Your task to perform on an android device: Toggle the flashlight Image 0: 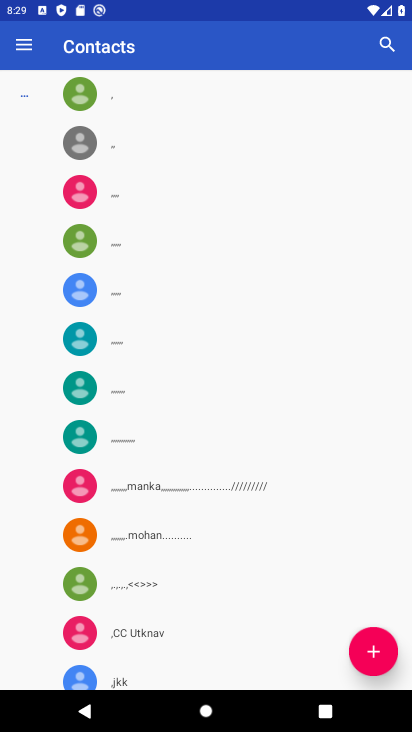
Step 0: press home button
Your task to perform on an android device: Toggle the flashlight Image 1: 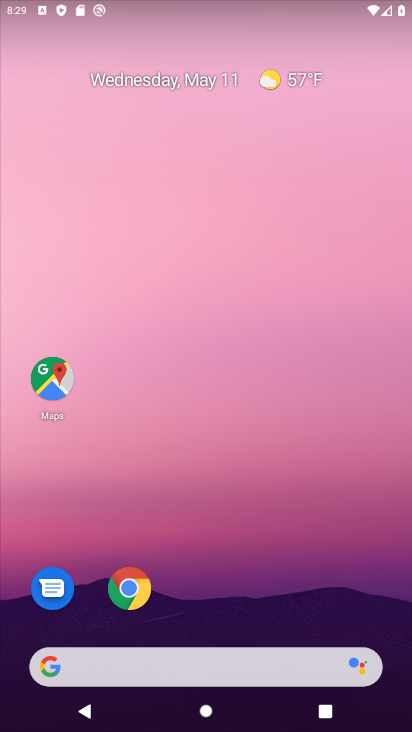
Step 1: task complete